Your task to perform on an android device: toggle improve location accuracy Image 0: 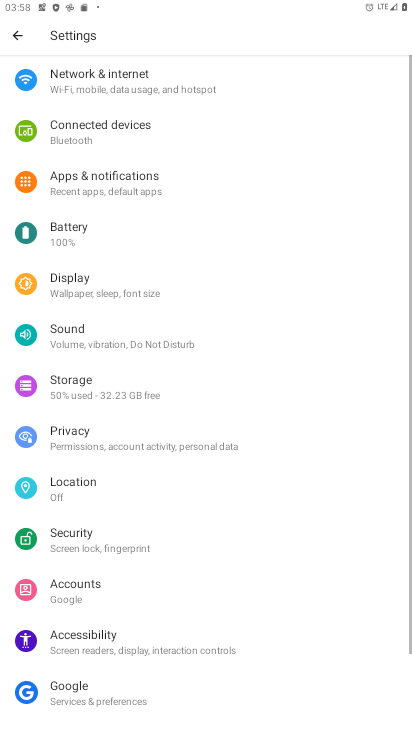
Step 0: press home button
Your task to perform on an android device: toggle improve location accuracy Image 1: 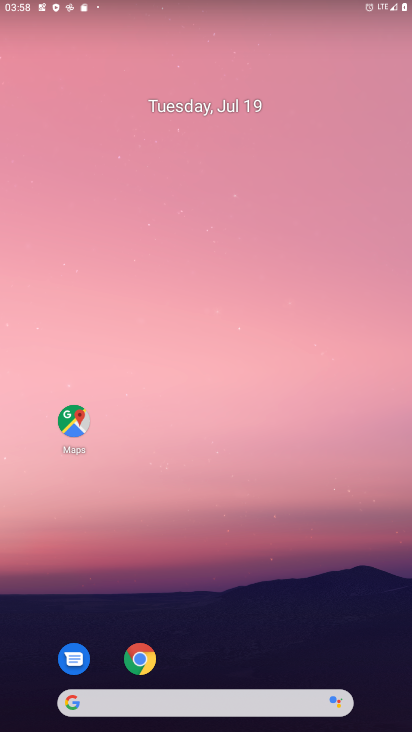
Step 1: drag from (237, 636) to (321, 28)
Your task to perform on an android device: toggle improve location accuracy Image 2: 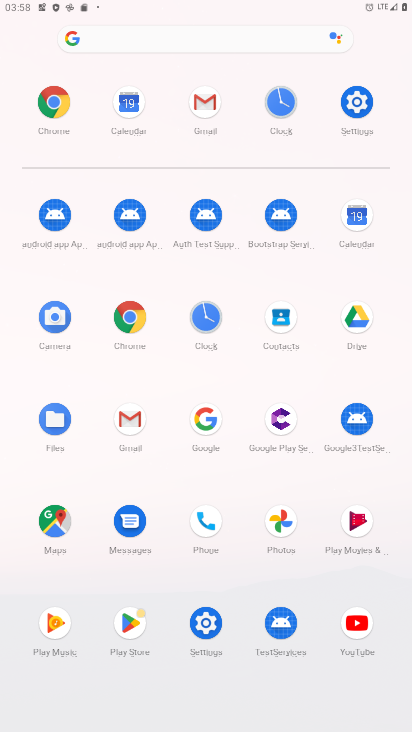
Step 2: click (198, 620)
Your task to perform on an android device: toggle improve location accuracy Image 3: 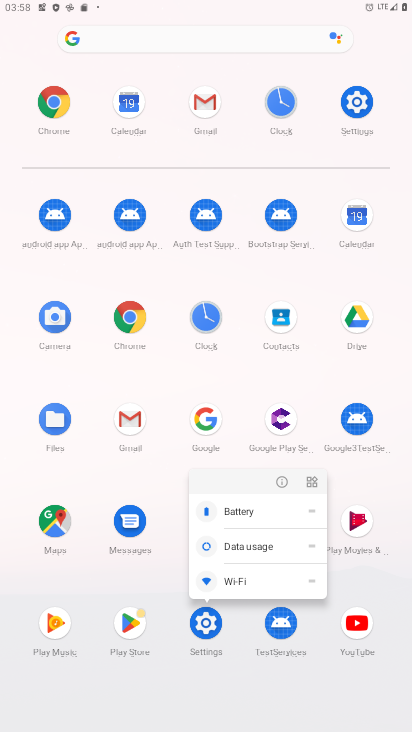
Step 3: click (198, 620)
Your task to perform on an android device: toggle improve location accuracy Image 4: 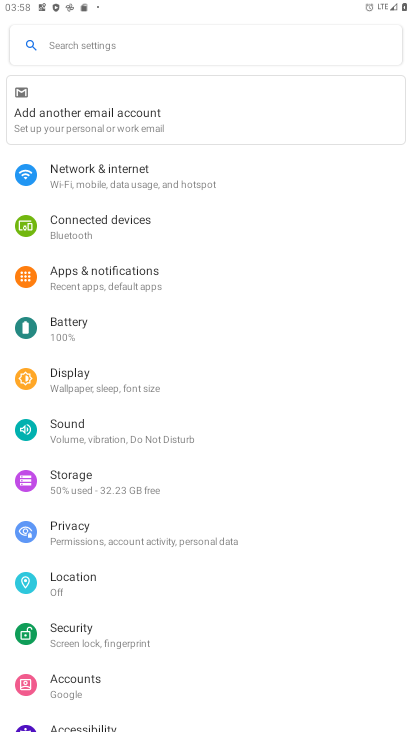
Step 4: click (46, 571)
Your task to perform on an android device: toggle improve location accuracy Image 5: 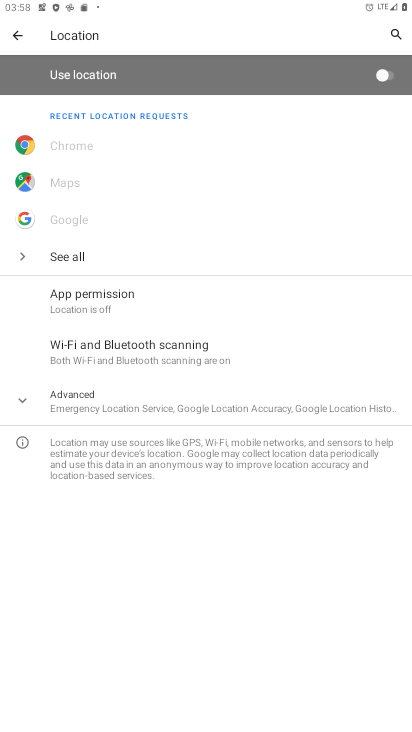
Step 5: click (114, 403)
Your task to perform on an android device: toggle improve location accuracy Image 6: 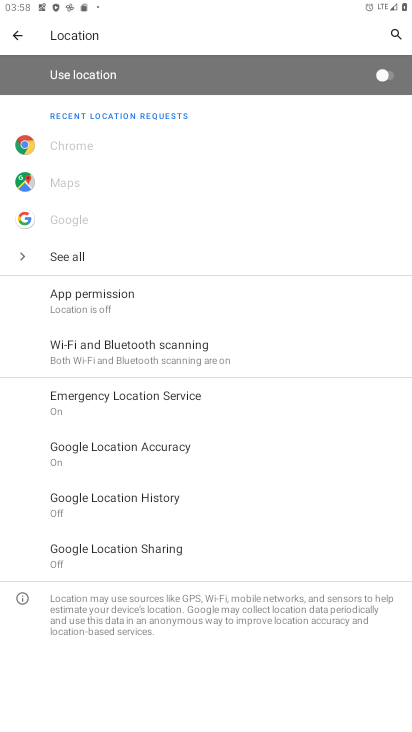
Step 6: click (102, 448)
Your task to perform on an android device: toggle improve location accuracy Image 7: 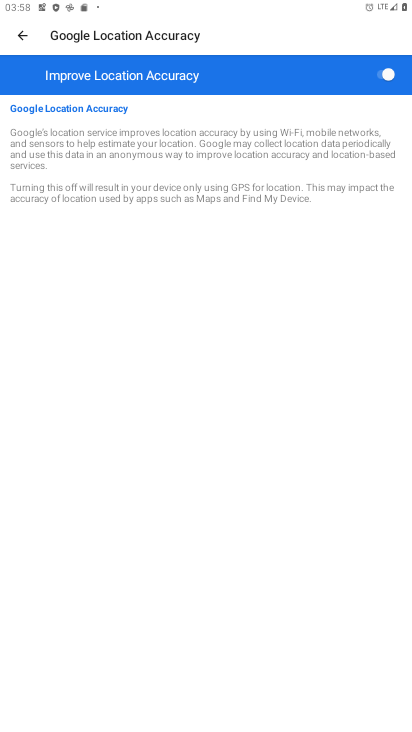
Step 7: click (238, 87)
Your task to perform on an android device: toggle improve location accuracy Image 8: 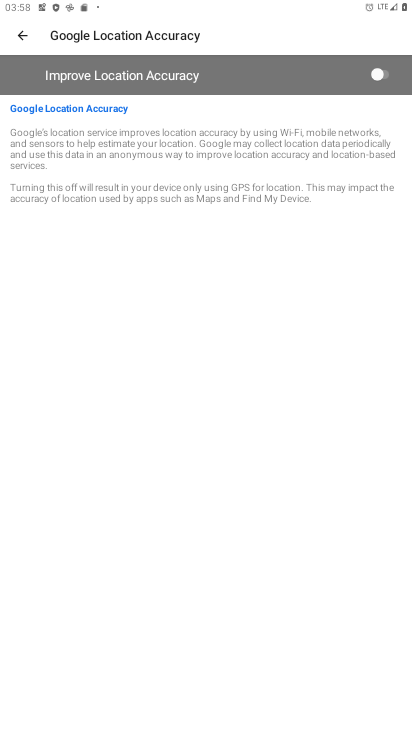
Step 8: task complete